Your task to perform on an android device: turn off airplane mode Image 0: 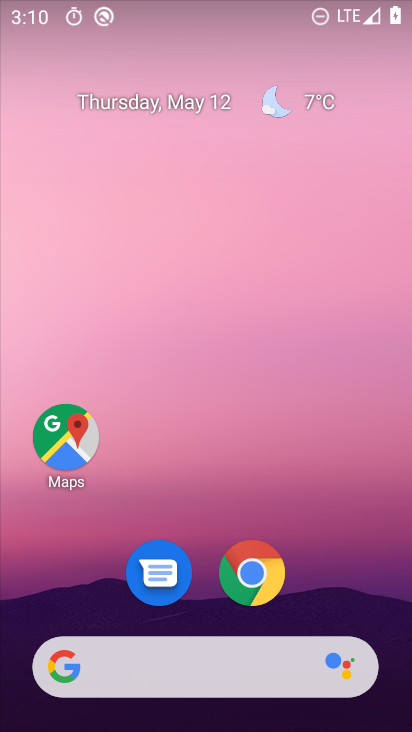
Step 0: click (194, 217)
Your task to perform on an android device: turn off airplane mode Image 1: 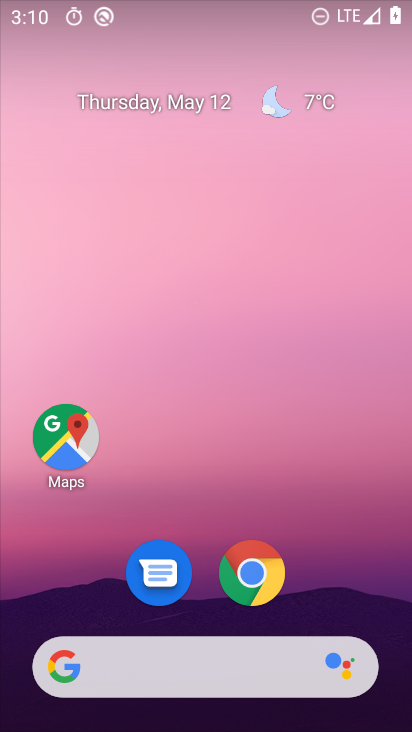
Step 1: click (199, 172)
Your task to perform on an android device: turn off airplane mode Image 2: 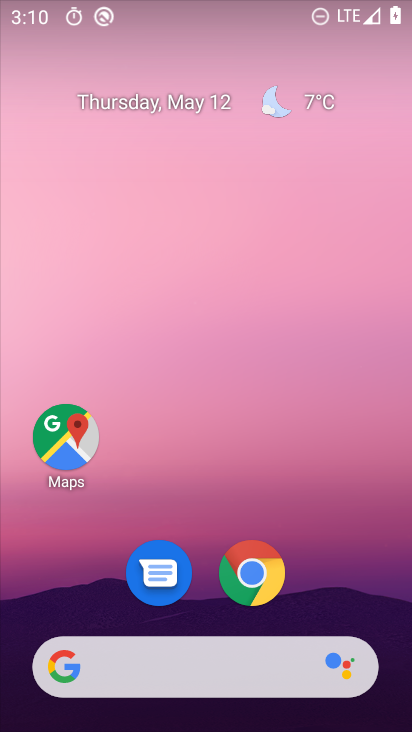
Step 2: drag from (275, 538) to (183, 52)
Your task to perform on an android device: turn off airplane mode Image 3: 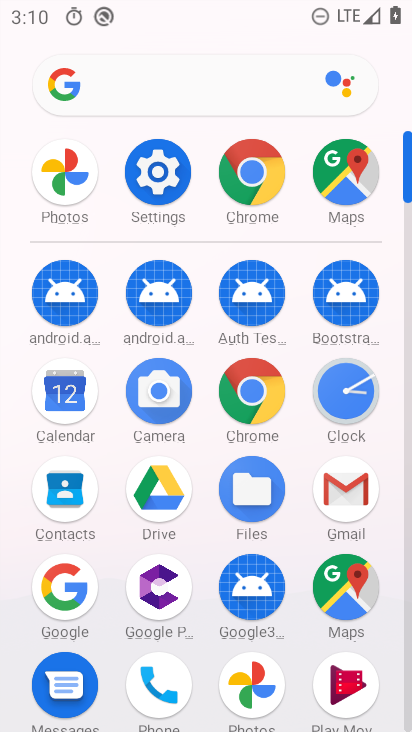
Step 3: click (161, 179)
Your task to perform on an android device: turn off airplane mode Image 4: 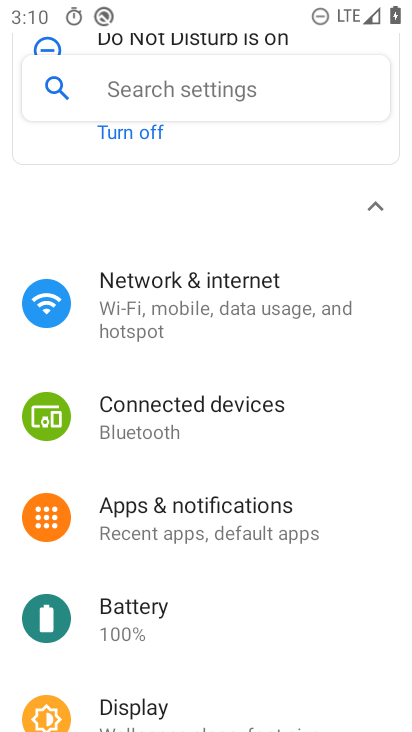
Step 4: click (157, 314)
Your task to perform on an android device: turn off airplane mode Image 5: 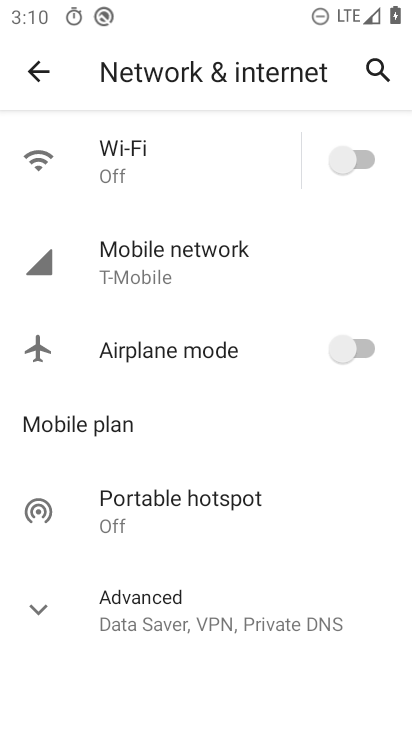
Step 5: task complete